Your task to perform on an android device: Search for seafood restaurants on Google Maps Image 0: 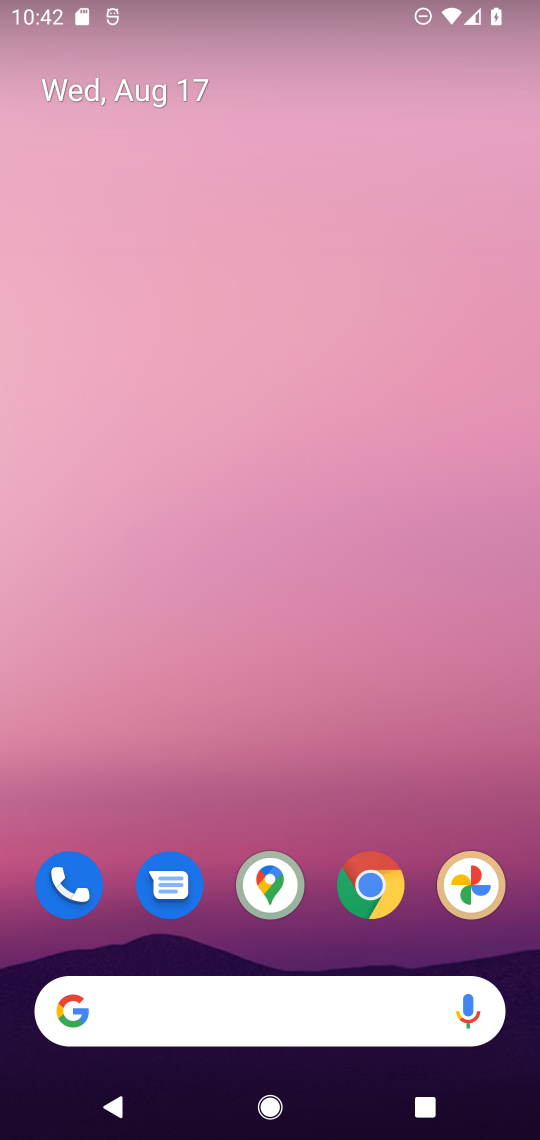
Step 0: click (270, 876)
Your task to perform on an android device: Search for seafood restaurants on Google Maps Image 1: 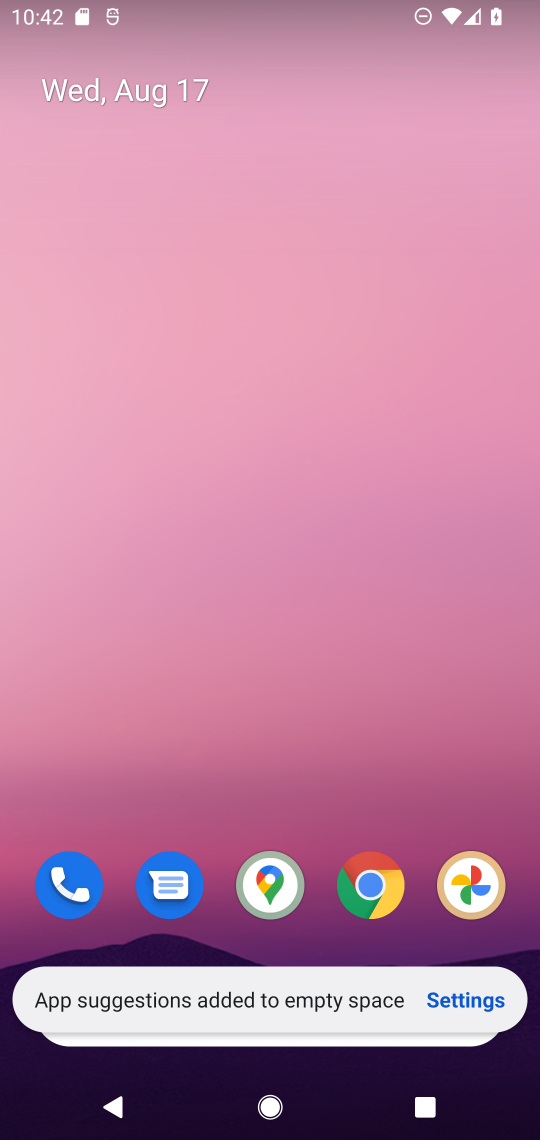
Step 1: click (270, 880)
Your task to perform on an android device: Search for seafood restaurants on Google Maps Image 2: 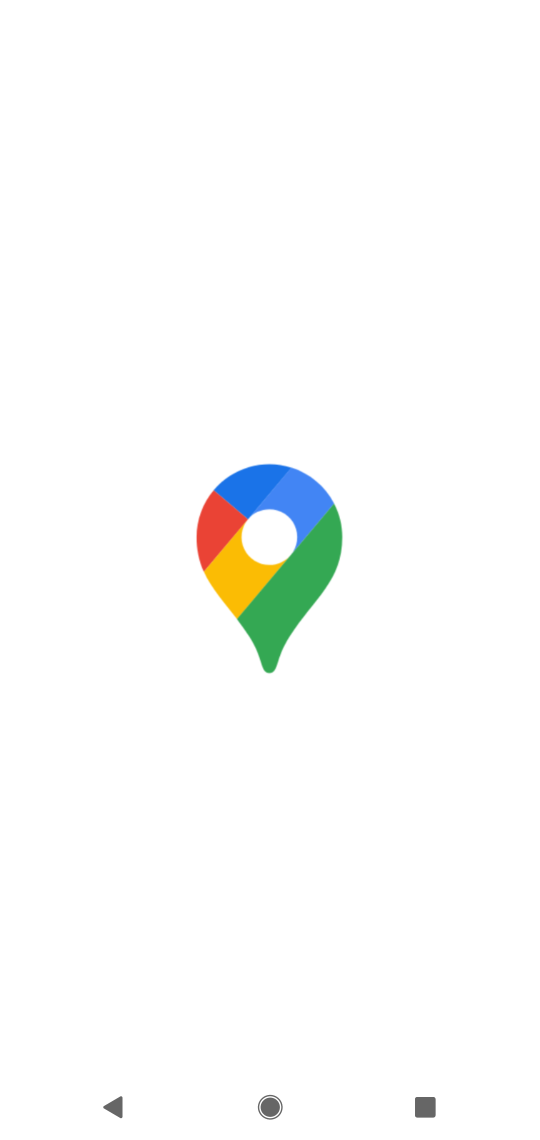
Step 2: click (267, 533)
Your task to perform on an android device: Search for seafood restaurants on Google Maps Image 3: 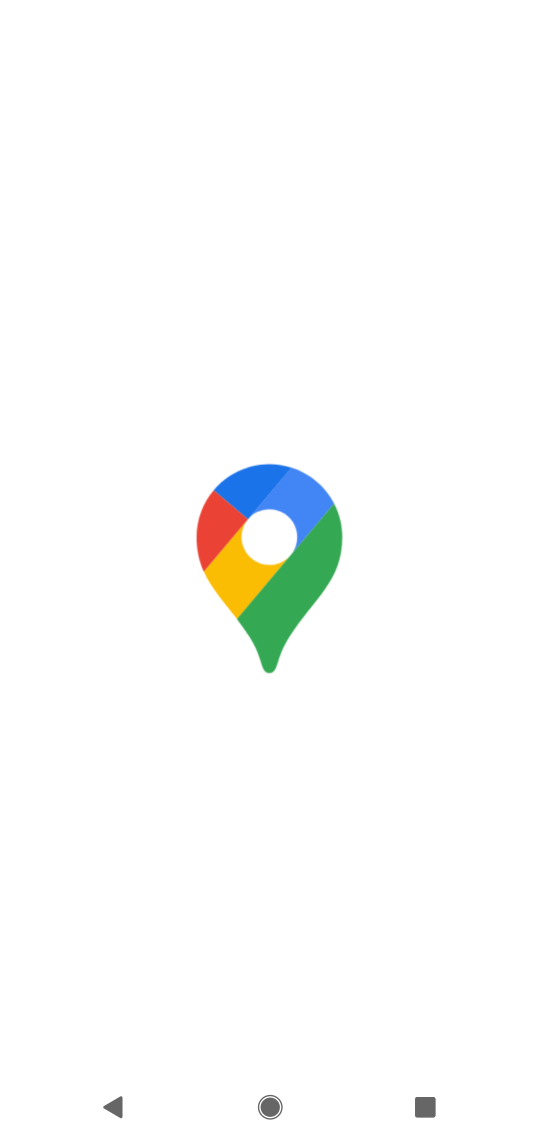
Step 3: click (267, 533)
Your task to perform on an android device: Search for seafood restaurants on Google Maps Image 4: 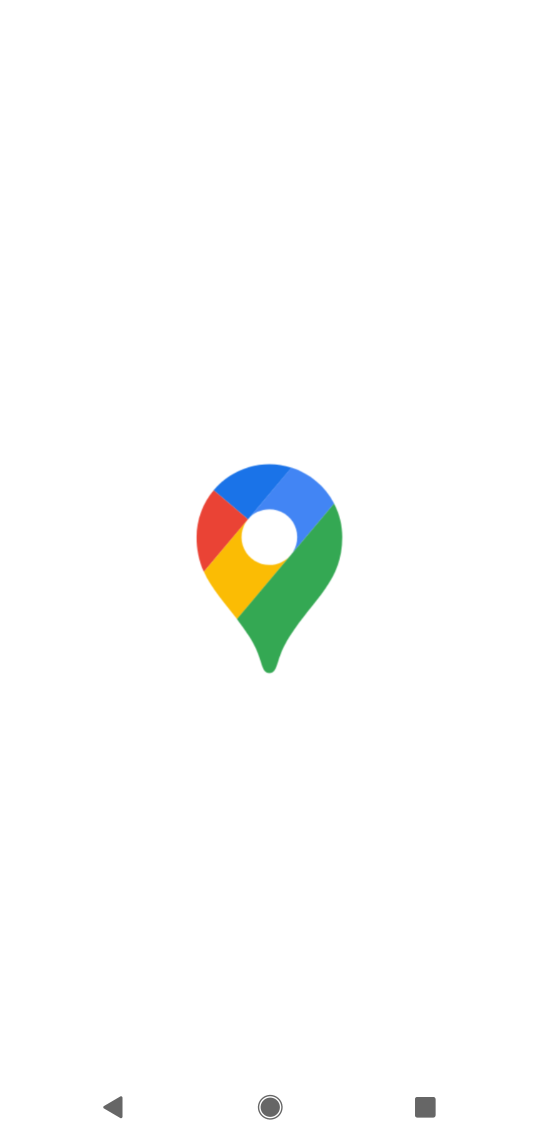
Step 4: task complete